Your task to perform on an android device: Is it going to rain today? Image 0: 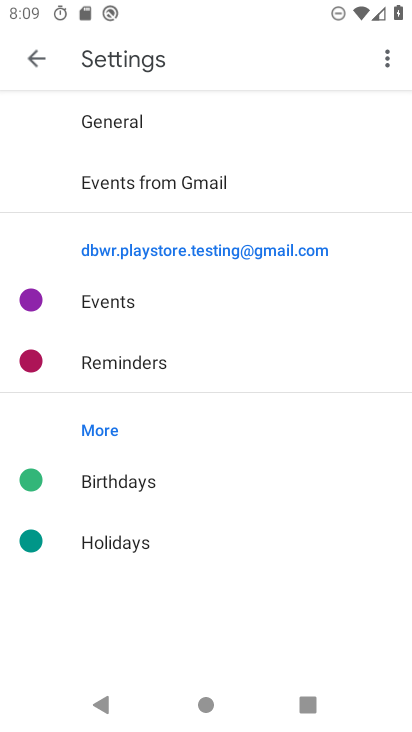
Step 0: press home button
Your task to perform on an android device: Is it going to rain today? Image 1: 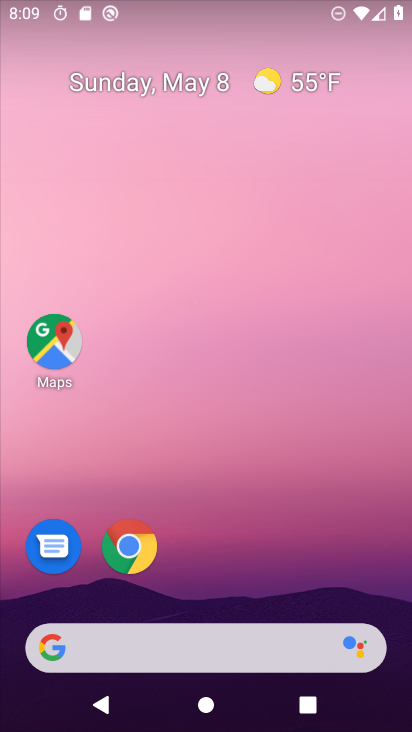
Step 1: click (315, 76)
Your task to perform on an android device: Is it going to rain today? Image 2: 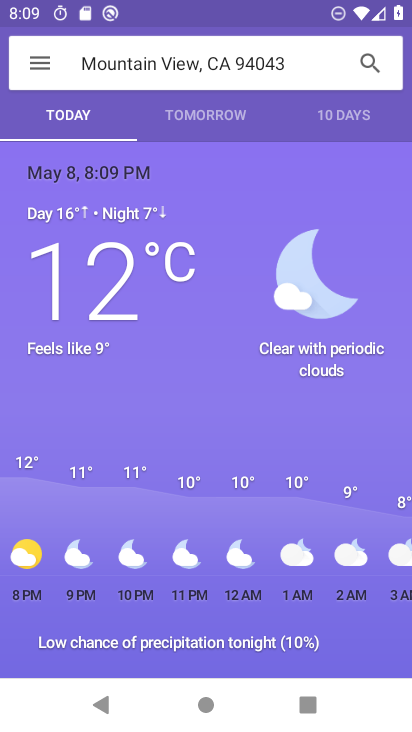
Step 2: task complete